Your task to perform on an android device: create a new album in the google photos Image 0: 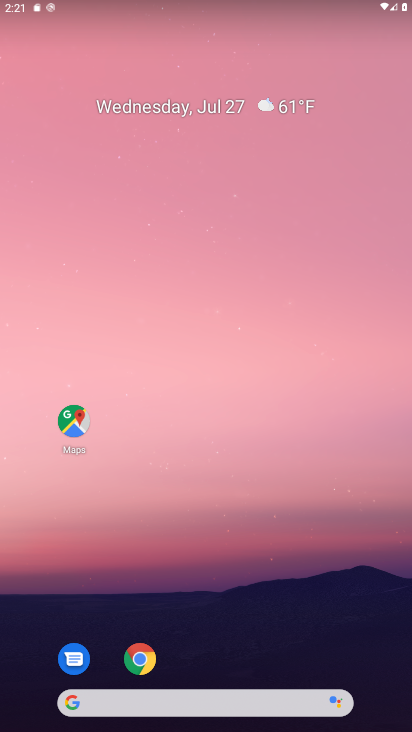
Step 0: drag from (174, 603) to (161, 97)
Your task to perform on an android device: create a new album in the google photos Image 1: 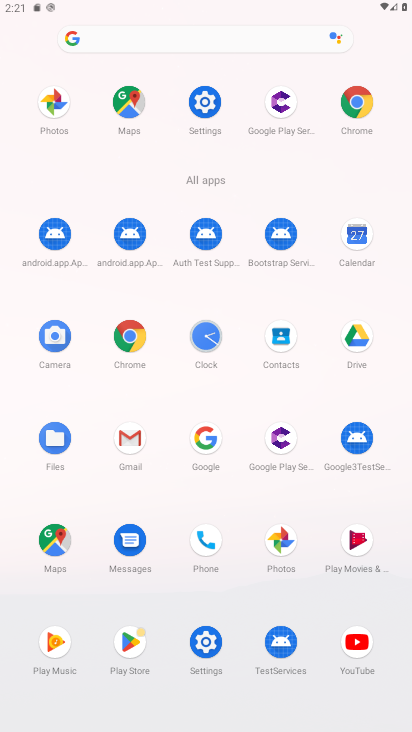
Step 1: click (273, 535)
Your task to perform on an android device: create a new album in the google photos Image 2: 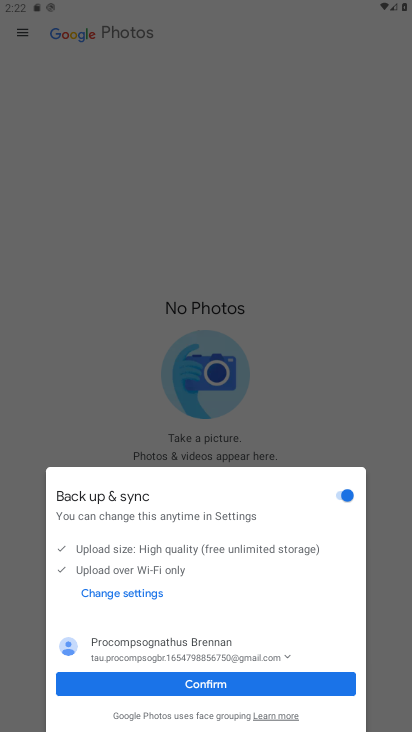
Step 2: click (228, 691)
Your task to perform on an android device: create a new album in the google photos Image 3: 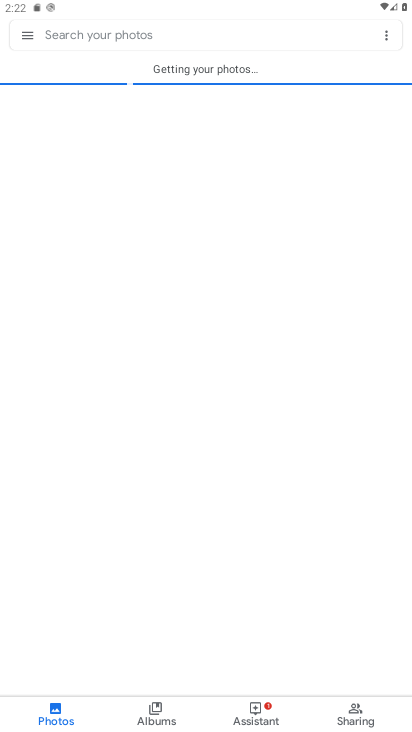
Step 3: click (157, 711)
Your task to perform on an android device: create a new album in the google photos Image 4: 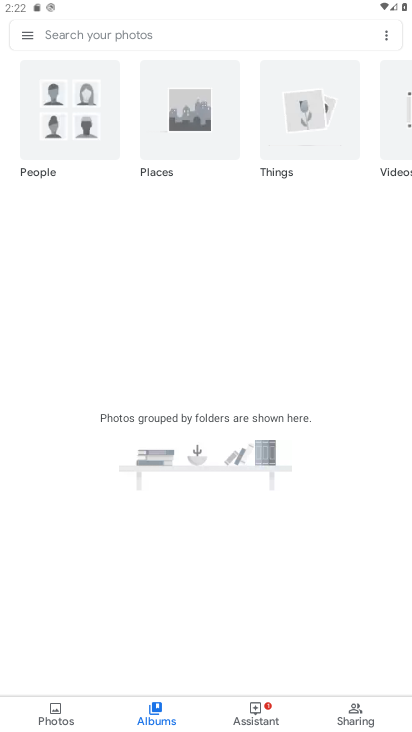
Step 4: click (264, 714)
Your task to perform on an android device: create a new album in the google photos Image 5: 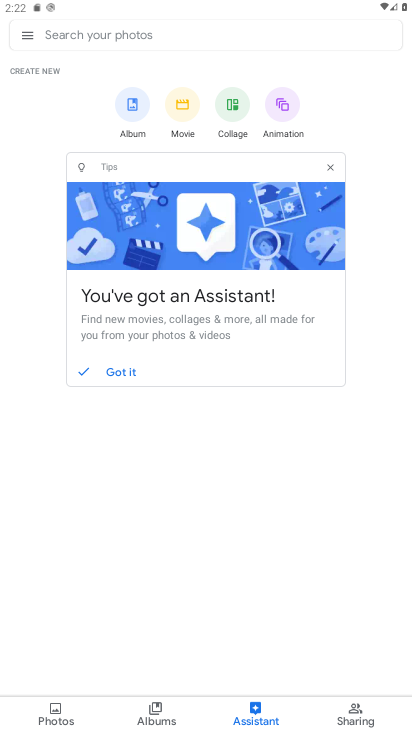
Step 5: click (118, 111)
Your task to perform on an android device: create a new album in the google photos Image 6: 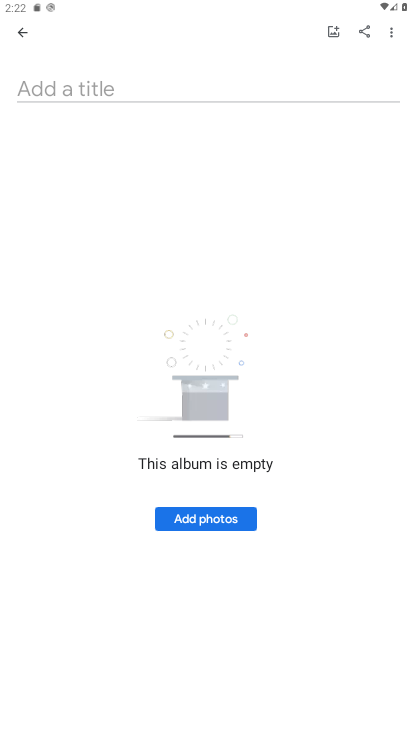
Step 6: click (114, 85)
Your task to perform on an android device: create a new album in the google photos Image 7: 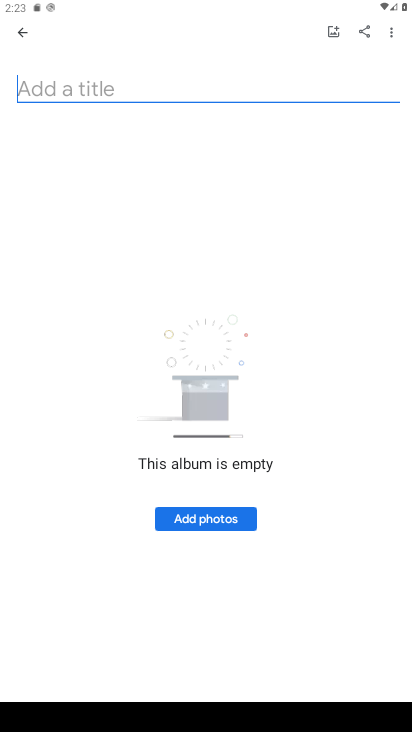
Step 7: type "cvbvc"
Your task to perform on an android device: create a new album in the google photos Image 8: 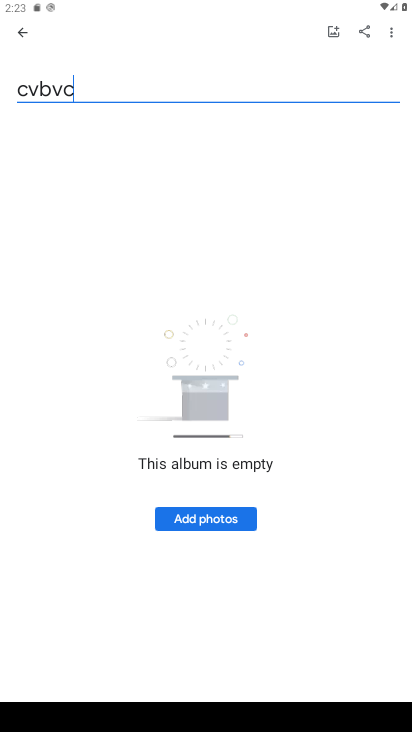
Step 8: click (215, 516)
Your task to perform on an android device: create a new album in the google photos Image 9: 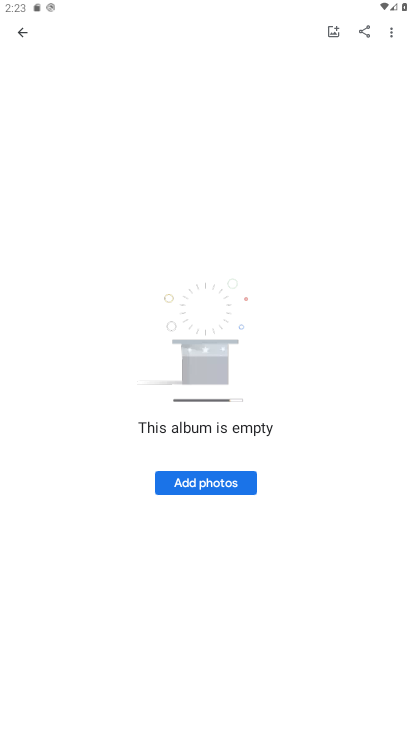
Step 9: click (184, 488)
Your task to perform on an android device: create a new album in the google photos Image 10: 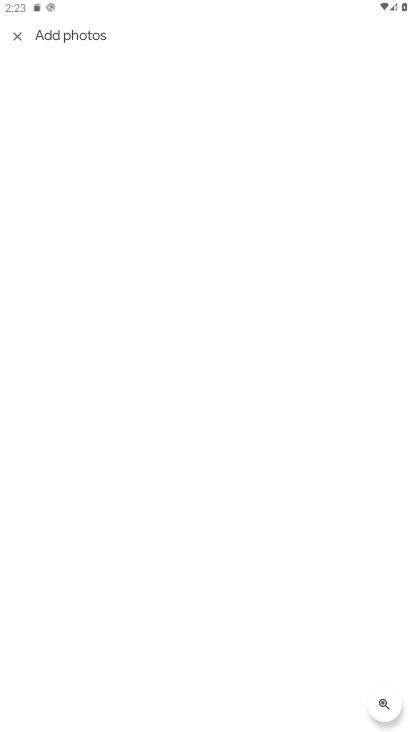
Step 10: task complete